Your task to perform on an android device: check data usage Image 0: 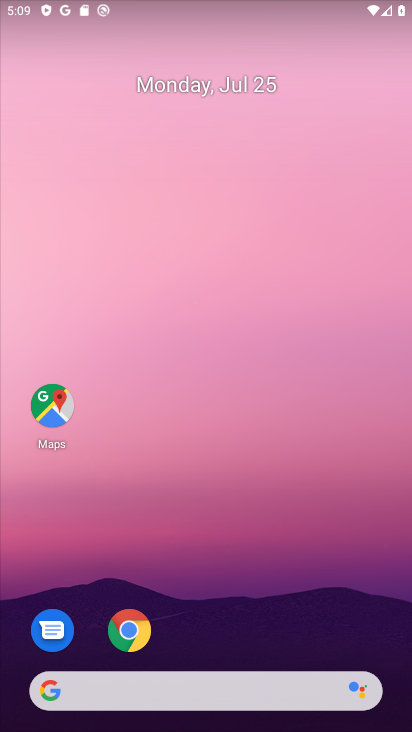
Step 0: click (275, 153)
Your task to perform on an android device: check data usage Image 1: 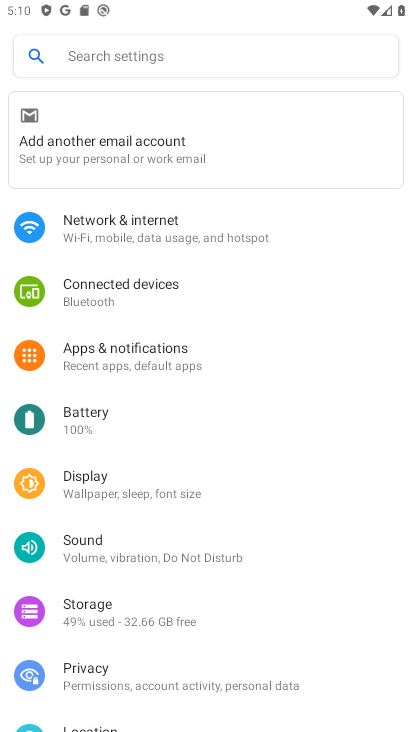
Step 1: click (148, 224)
Your task to perform on an android device: check data usage Image 2: 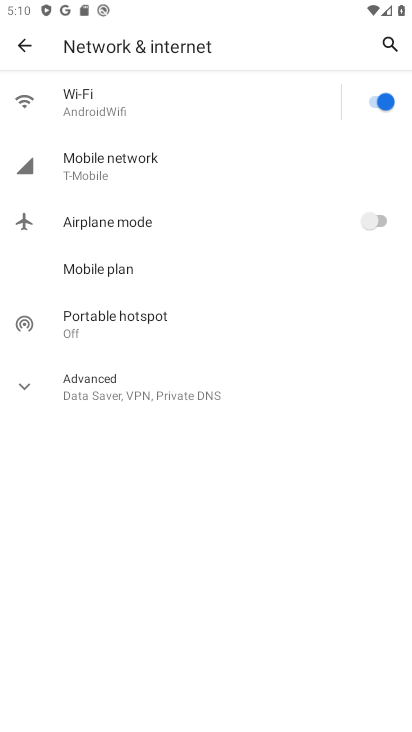
Step 2: click (27, 383)
Your task to perform on an android device: check data usage Image 3: 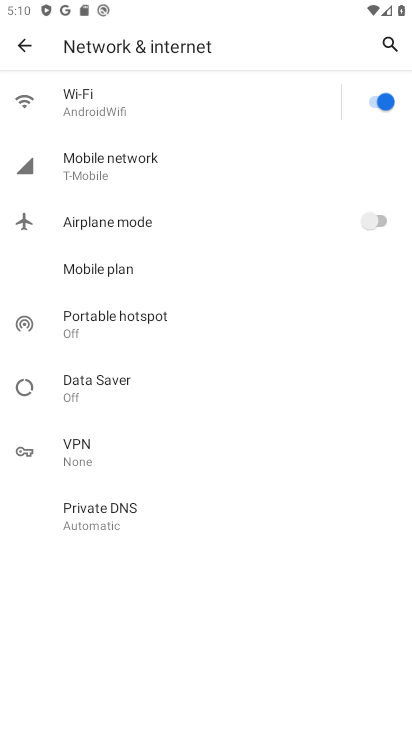
Step 3: click (99, 175)
Your task to perform on an android device: check data usage Image 4: 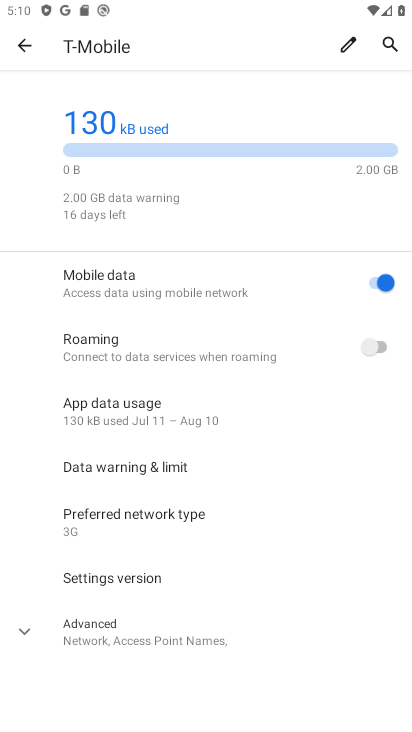
Step 4: click (137, 400)
Your task to perform on an android device: check data usage Image 5: 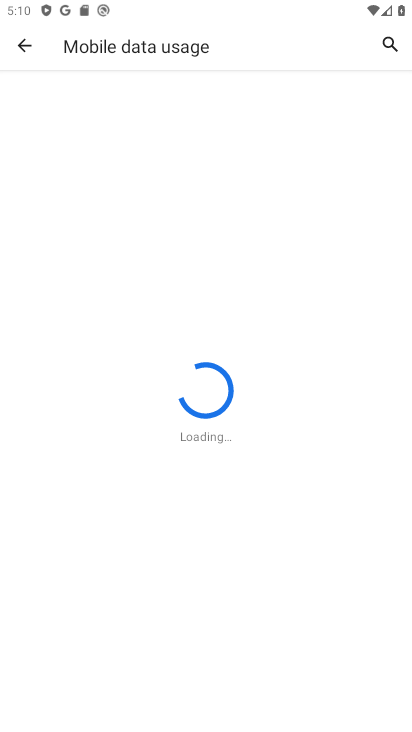
Step 5: task complete